Your task to perform on an android device: toggle wifi Image 0: 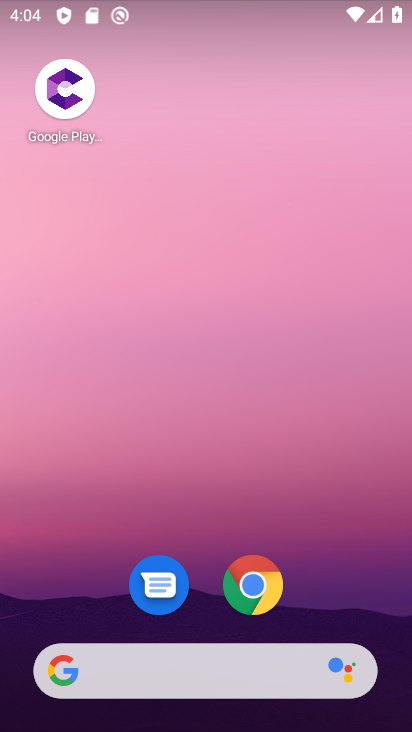
Step 0: drag from (194, 526) to (234, 72)
Your task to perform on an android device: toggle wifi Image 1: 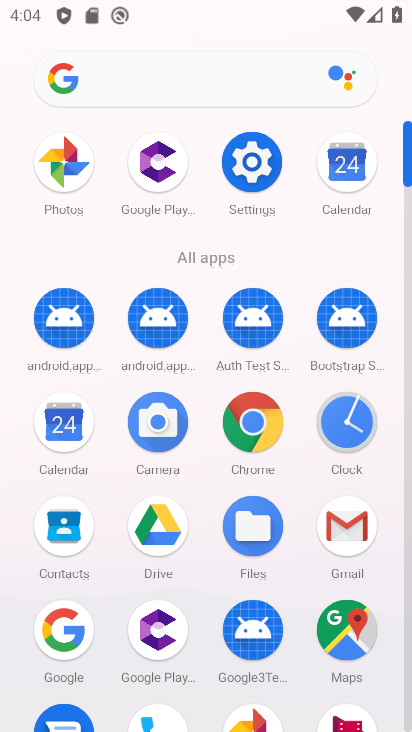
Step 1: click (247, 162)
Your task to perform on an android device: toggle wifi Image 2: 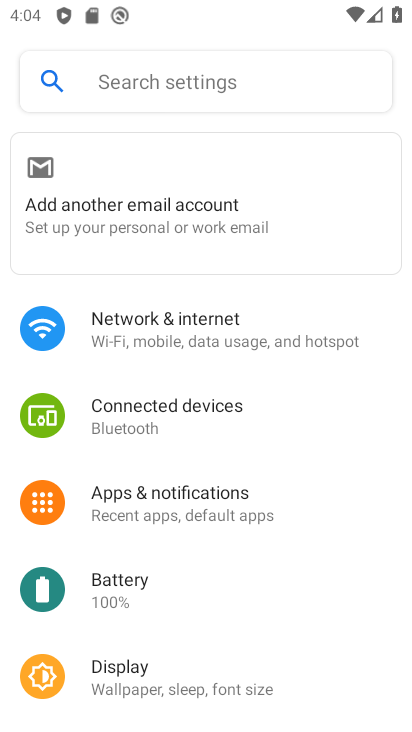
Step 2: click (231, 329)
Your task to perform on an android device: toggle wifi Image 3: 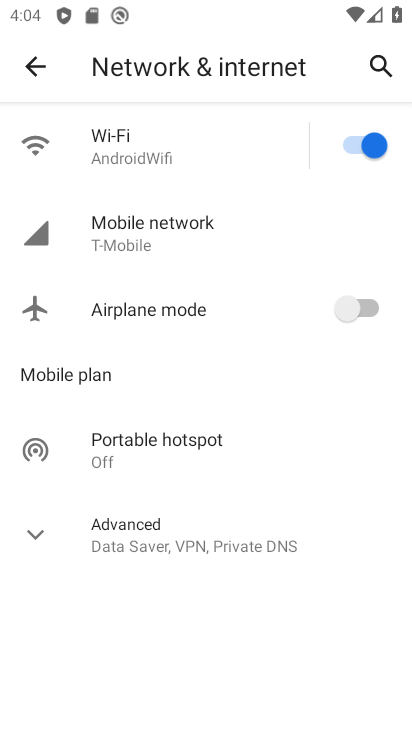
Step 3: click (362, 139)
Your task to perform on an android device: toggle wifi Image 4: 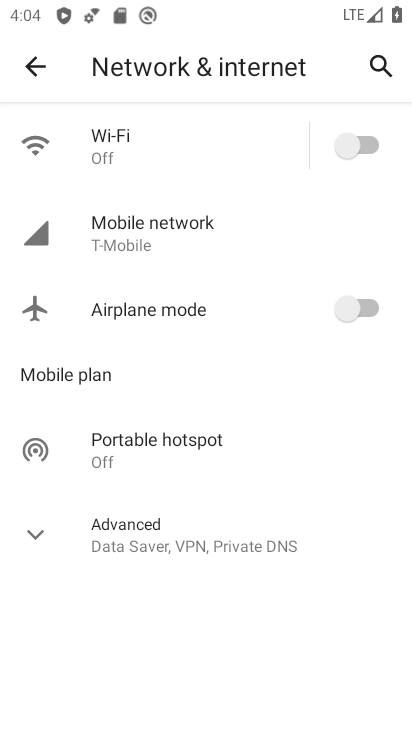
Step 4: task complete